Your task to perform on an android device: turn on improve location accuracy Image 0: 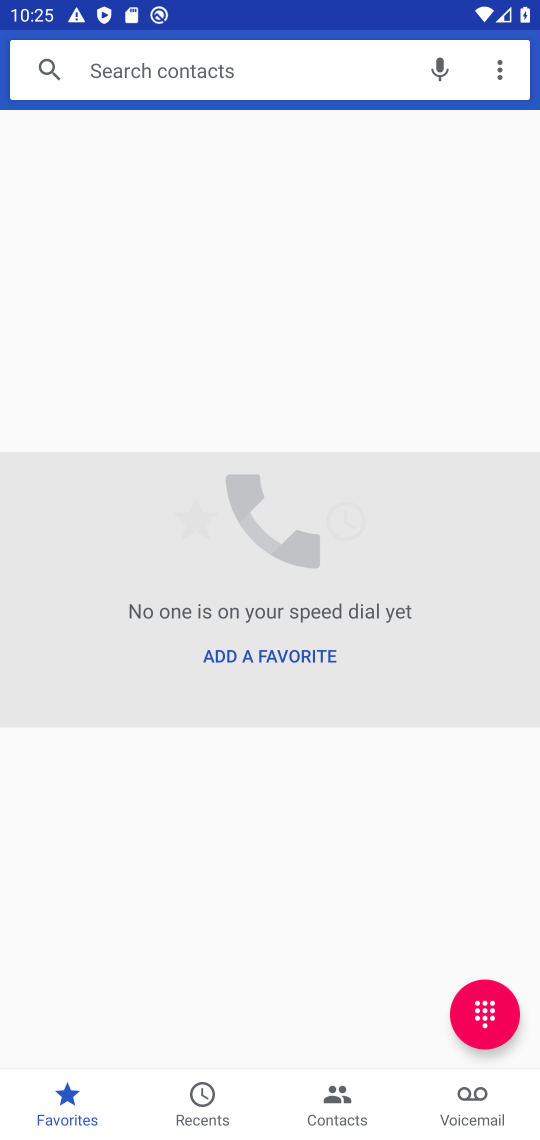
Step 0: press home button
Your task to perform on an android device: turn on improve location accuracy Image 1: 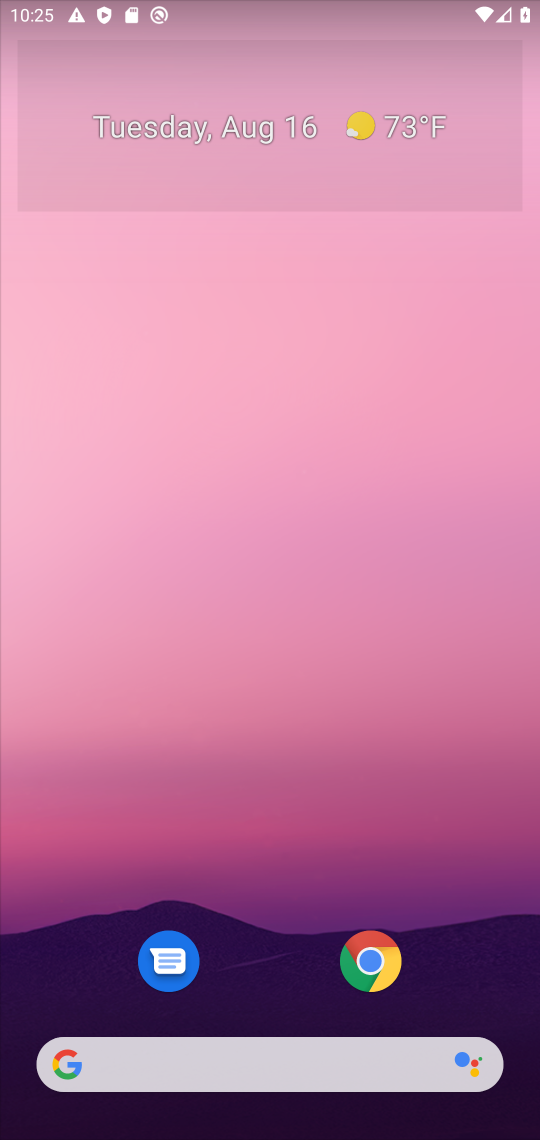
Step 1: drag from (245, 837) to (292, 414)
Your task to perform on an android device: turn on improve location accuracy Image 2: 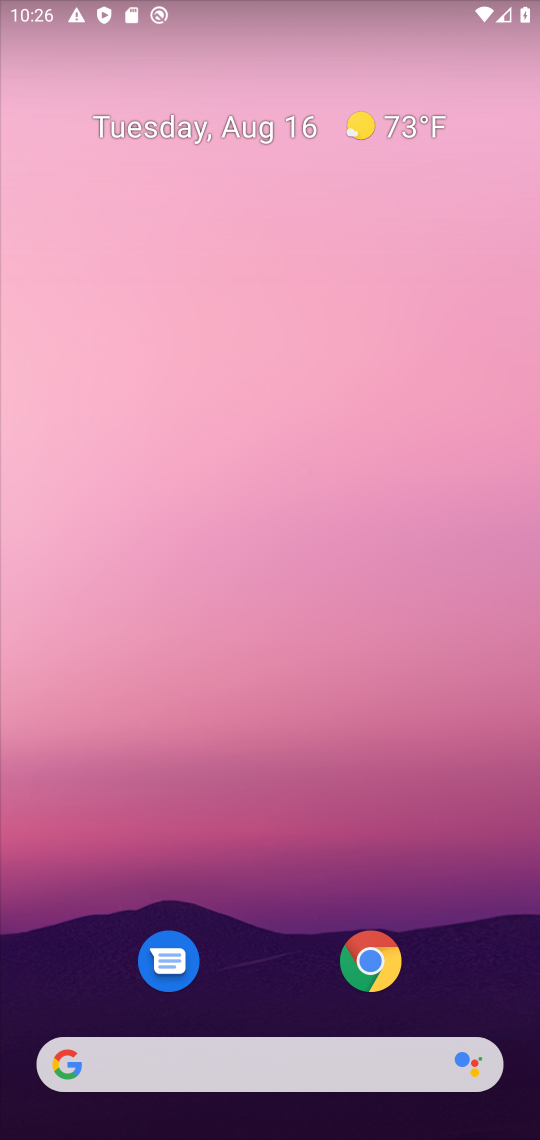
Step 2: drag from (291, 891) to (309, 268)
Your task to perform on an android device: turn on improve location accuracy Image 3: 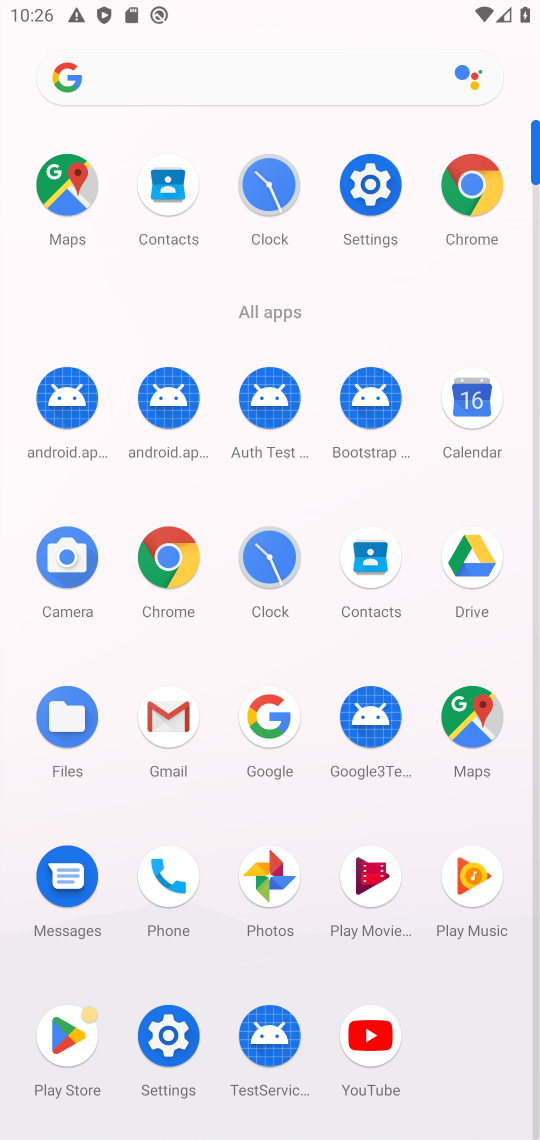
Step 3: click (372, 215)
Your task to perform on an android device: turn on improve location accuracy Image 4: 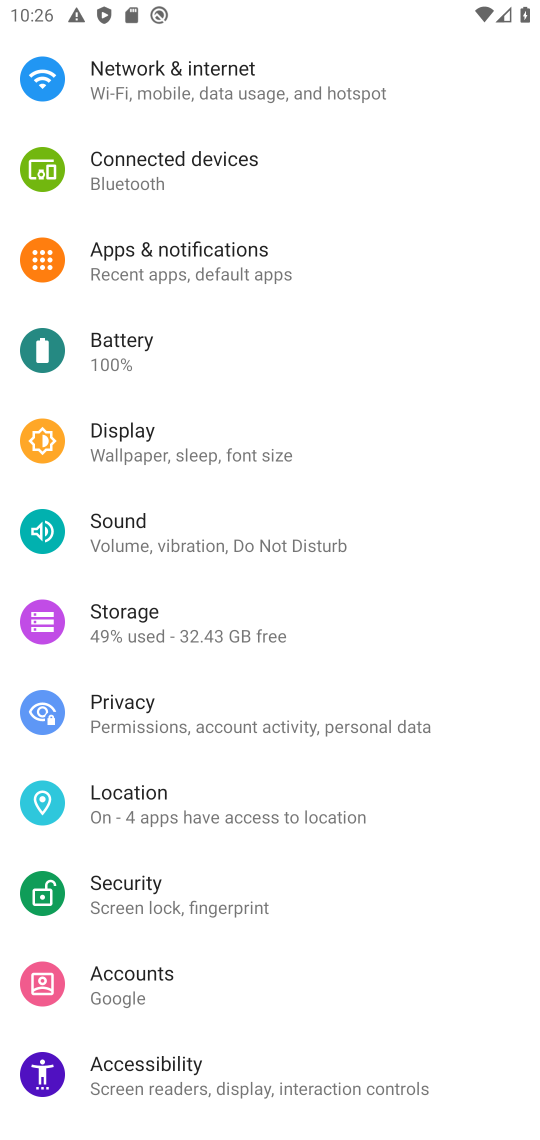
Step 4: task complete